Your task to perform on an android device: Search for pizza restaurants on Maps Image 0: 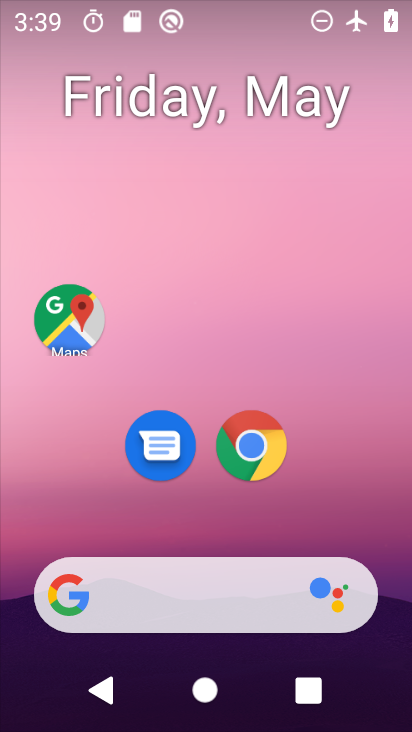
Step 0: drag from (222, 581) to (290, 247)
Your task to perform on an android device: Search for pizza restaurants on Maps Image 1: 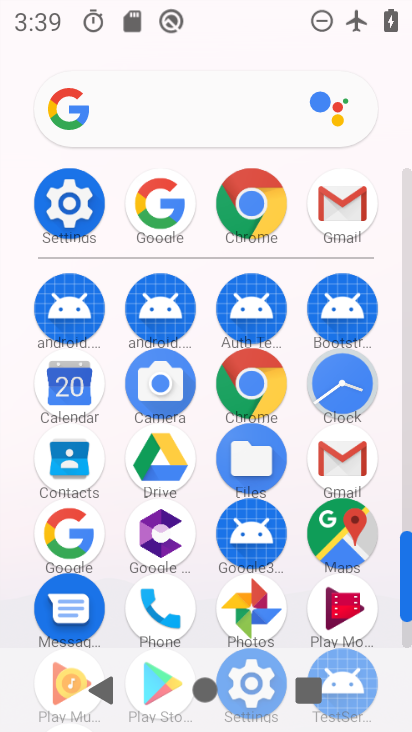
Step 1: click (341, 545)
Your task to perform on an android device: Search for pizza restaurants on Maps Image 2: 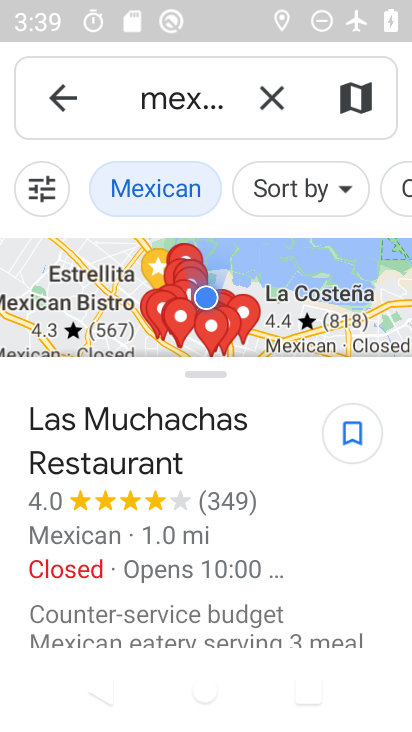
Step 2: click (278, 111)
Your task to perform on an android device: Search for pizza restaurants on Maps Image 3: 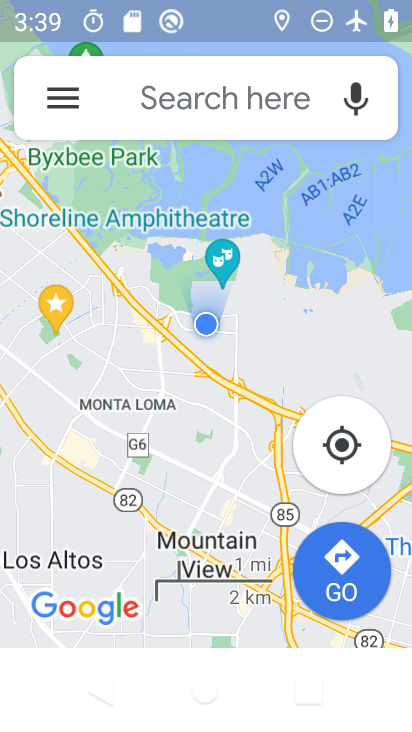
Step 3: click (251, 94)
Your task to perform on an android device: Search for pizza restaurants on Maps Image 4: 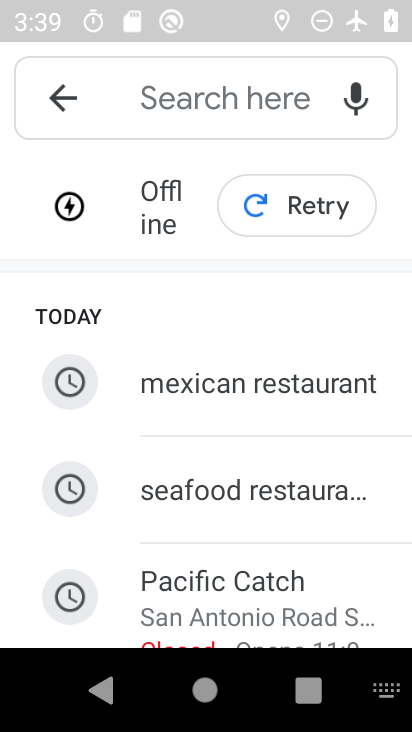
Step 4: drag from (261, 522) to (309, 264)
Your task to perform on an android device: Search for pizza restaurants on Maps Image 5: 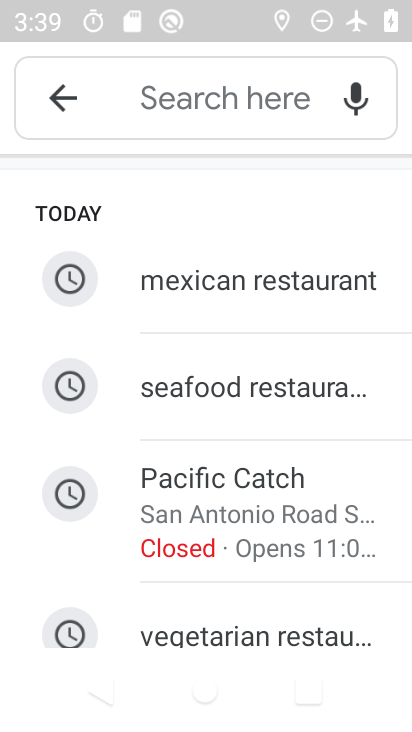
Step 5: drag from (292, 599) to (311, 335)
Your task to perform on an android device: Search for pizza restaurants on Maps Image 6: 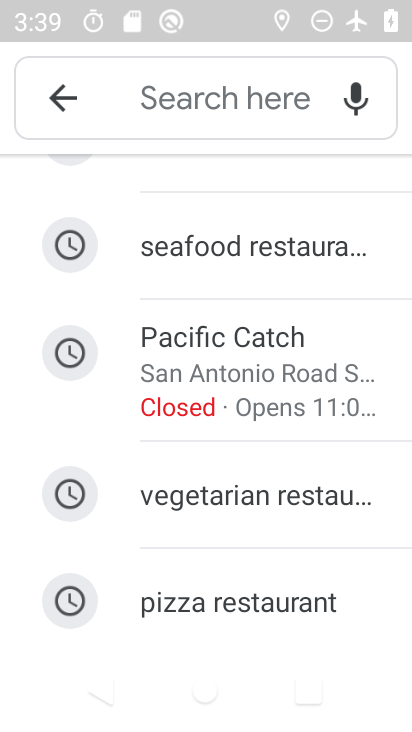
Step 6: click (260, 601)
Your task to perform on an android device: Search for pizza restaurants on Maps Image 7: 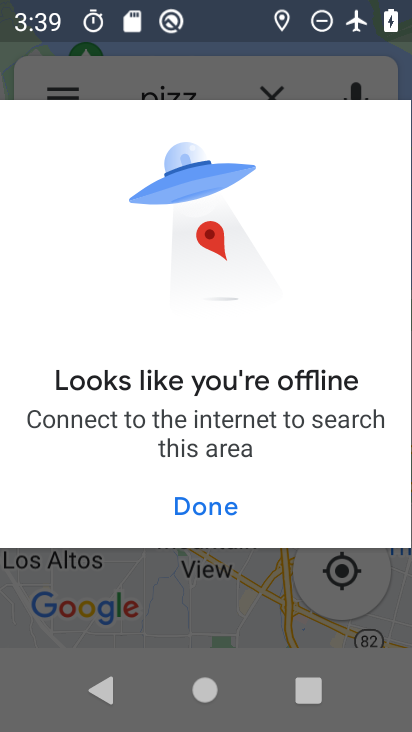
Step 7: task complete